Your task to perform on an android device: Open Wikipedia Image 0: 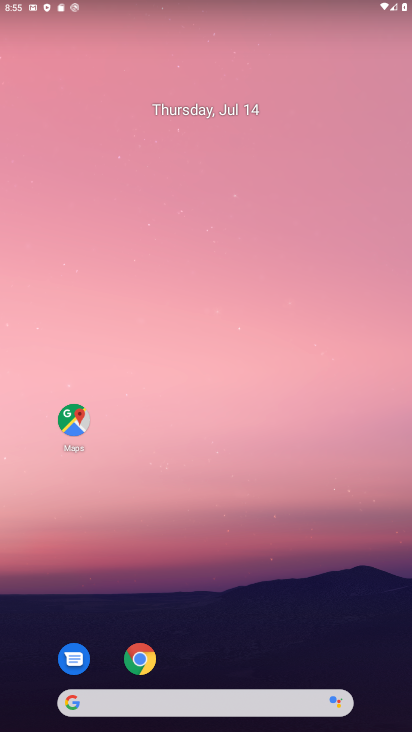
Step 0: click (68, 716)
Your task to perform on an android device: Open Wikipedia Image 1: 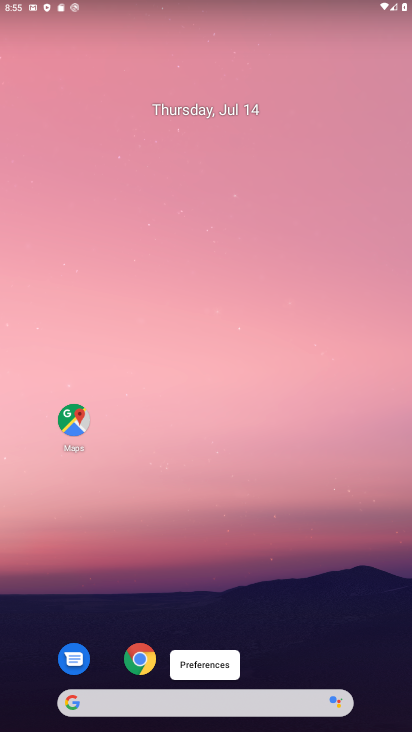
Step 1: click (76, 703)
Your task to perform on an android device: Open Wikipedia Image 2: 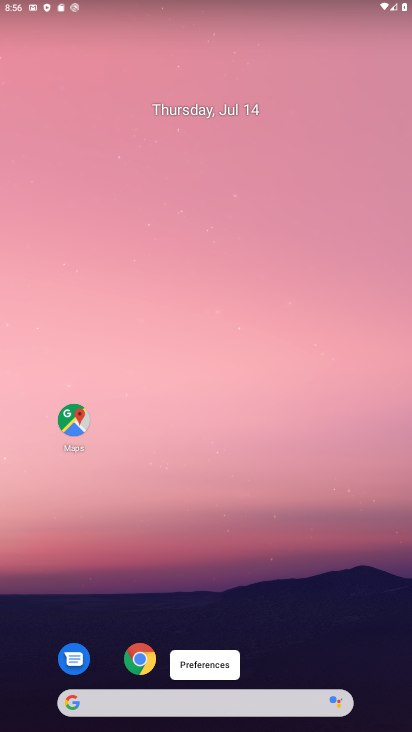
Step 2: click (74, 703)
Your task to perform on an android device: Open Wikipedia Image 3: 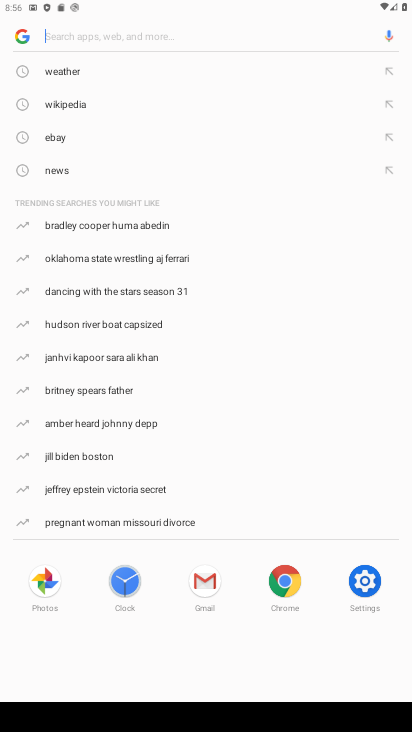
Step 3: type "Wikipedia"
Your task to perform on an android device: Open Wikipedia Image 4: 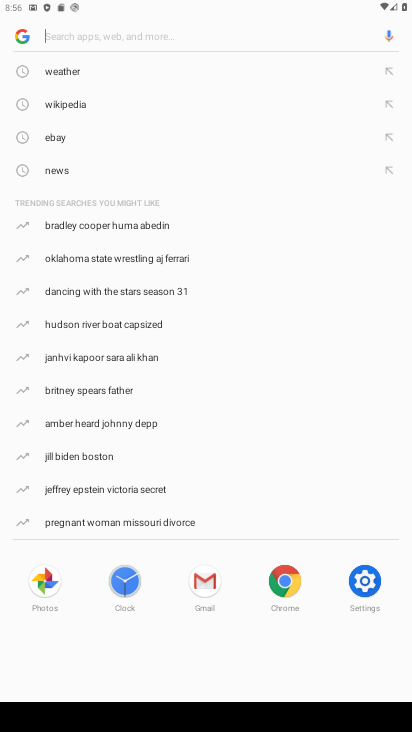
Step 4: click (81, 39)
Your task to perform on an android device: Open Wikipedia Image 5: 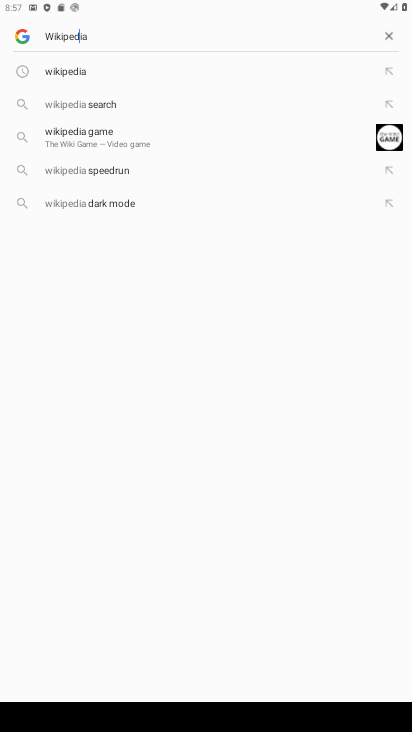
Step 5: press enter
Your task to perform on an android device: Open Wikipedia Image 6: 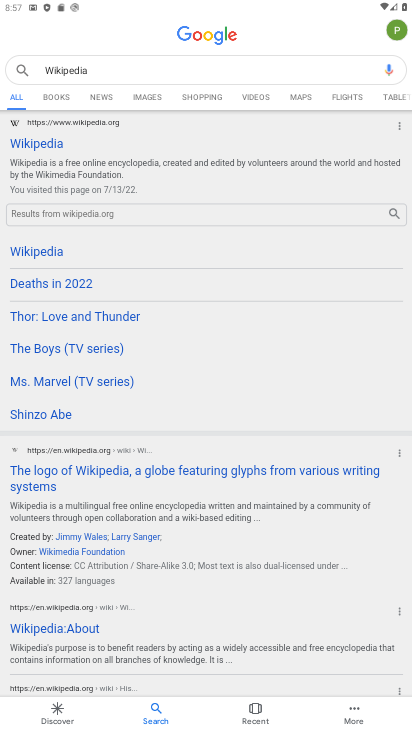
Step 6: task complete